Your task to perform on an android device: install app "Microsoft Excel" Image 0: 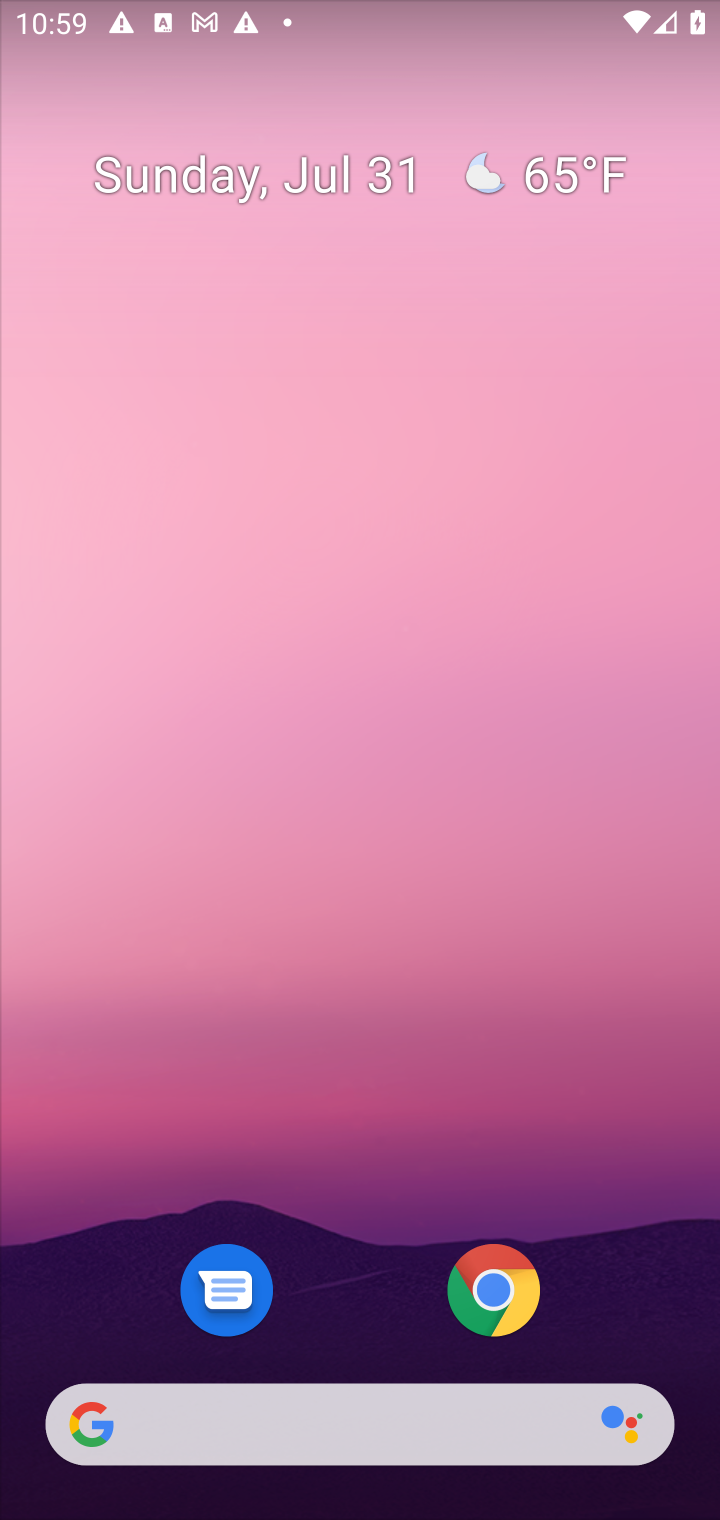
Step 0: press home button
Your task to perform on an android device: install app "Microsoft Excel" Image 1: 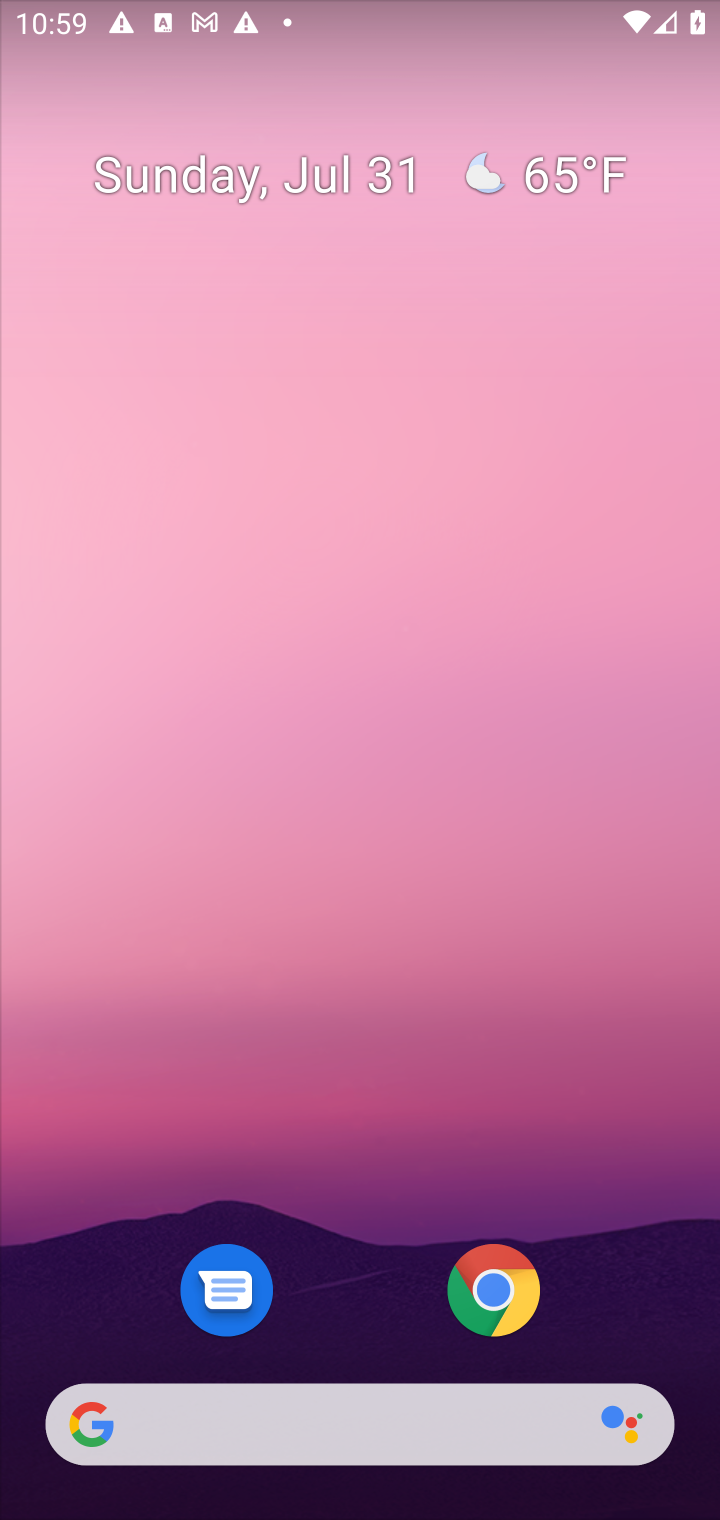
Step 1: drag from (602, 1227) to (562, 143)
Your task to perform on an android device: install app "Microsoft Excel" Image 2: 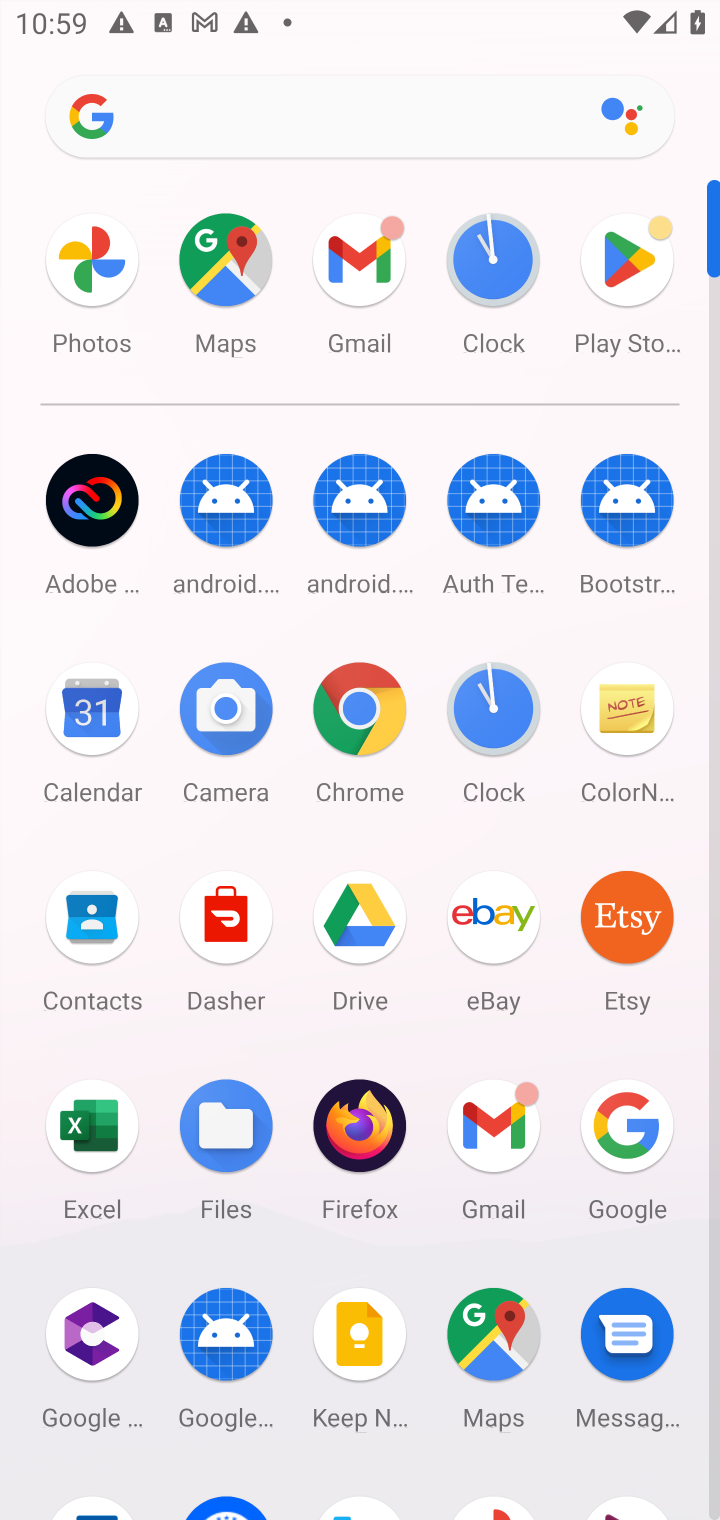
Step 2: click (627, 264)
Your task to perform on an android device: install app "Microsoft Excel" Image 3: 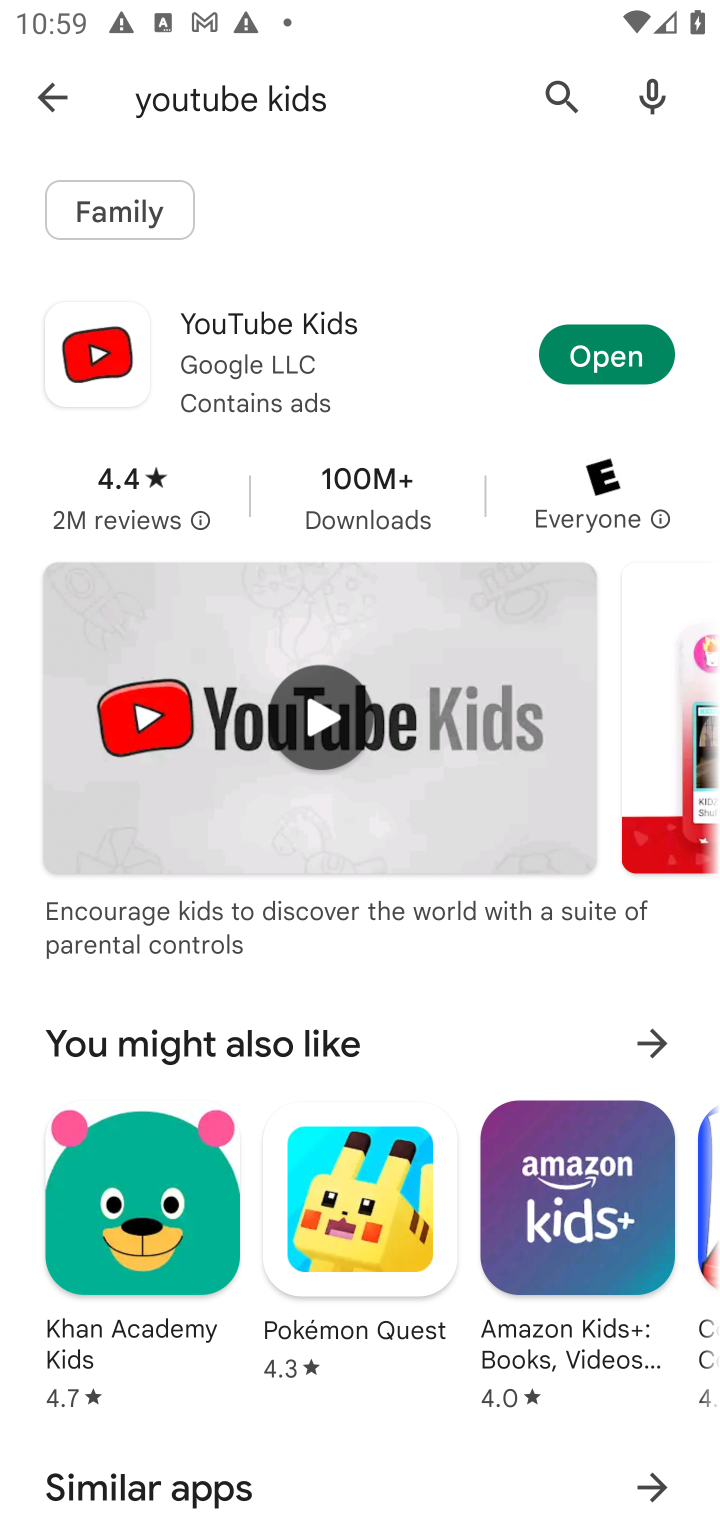
Step 3: click (569, 80)
Your task to perform on an android device: install app "Microsoft Excel" Image 4: 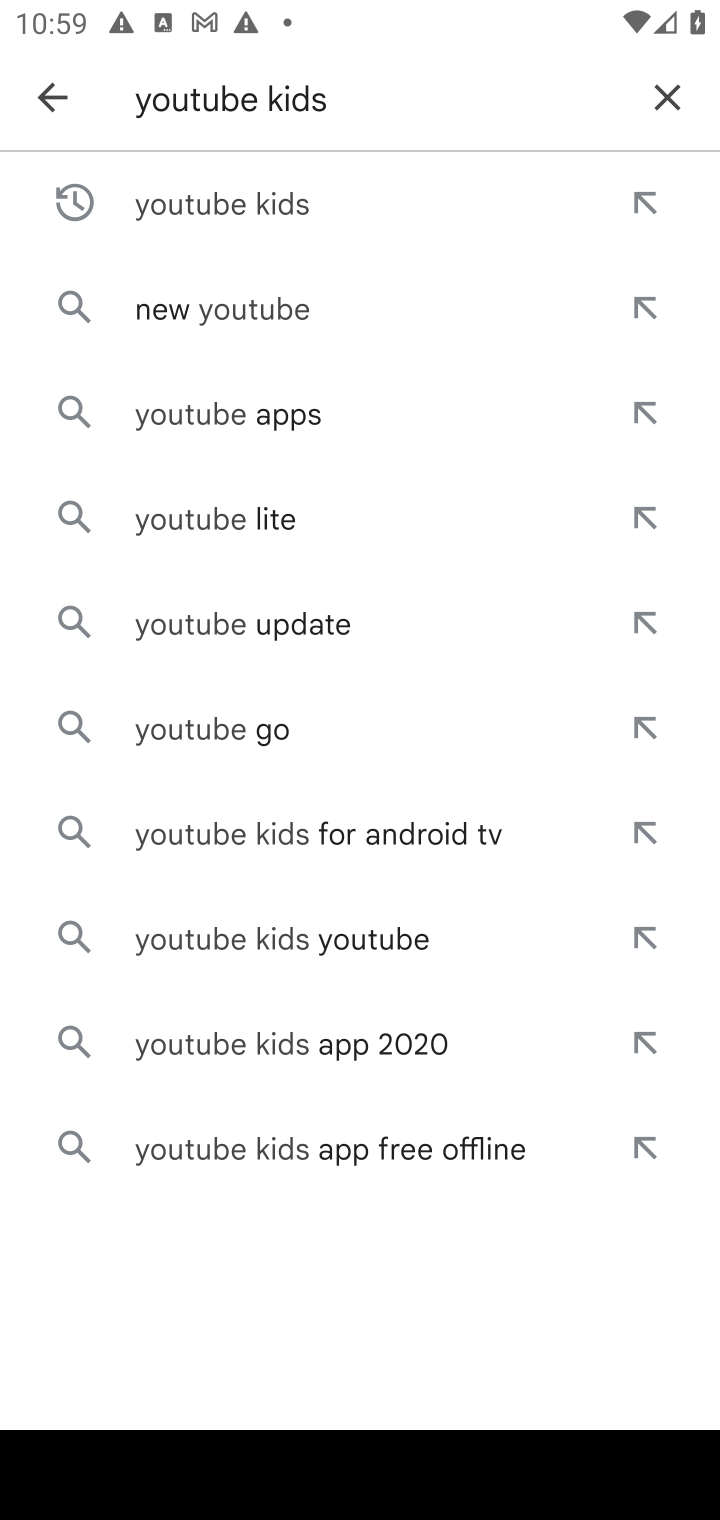
Step 4: click (667, 103)
Your task to perform on an android device: install app "Microsoft Excel" Image 5: 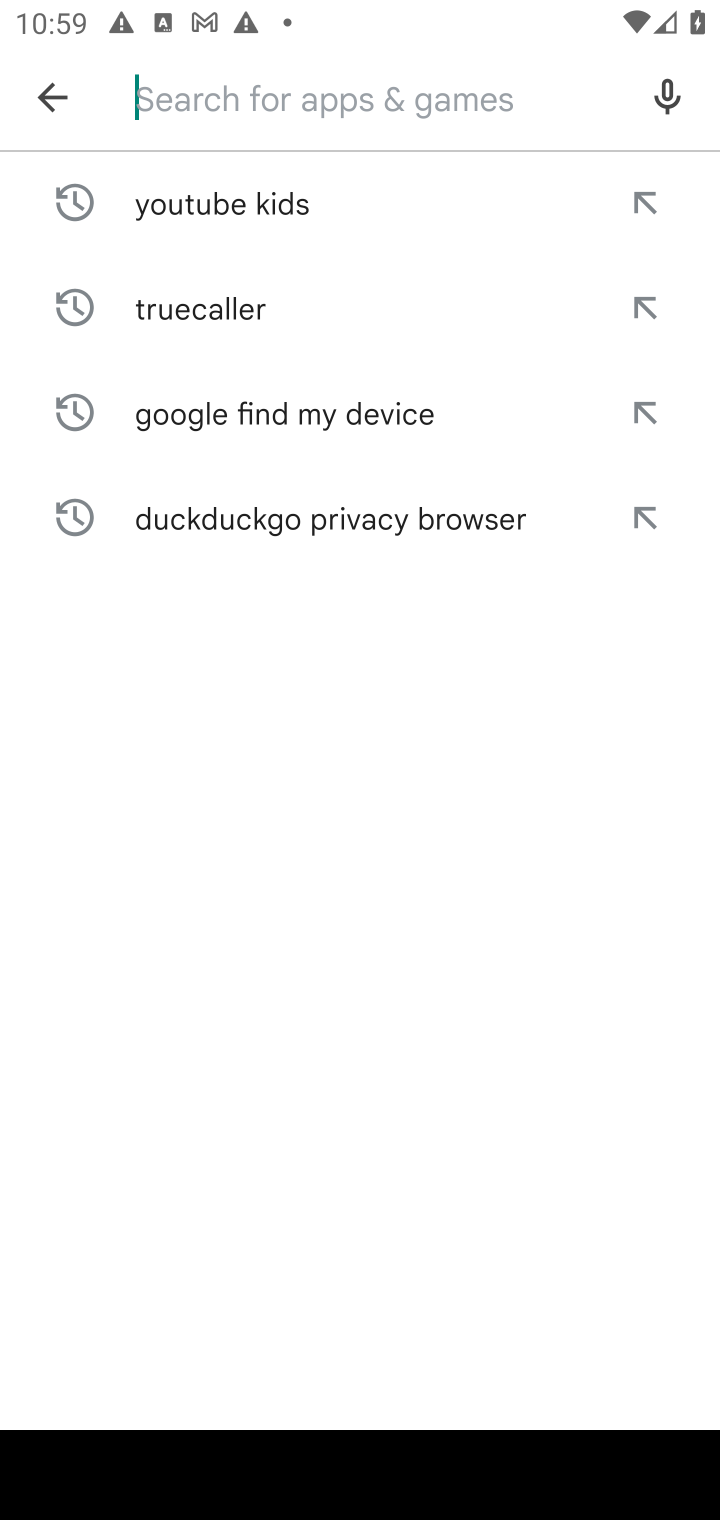
Step 5: type "microsoft excel"
Your task to perform on an android device: install app "Microsoft Excel" Image 6: 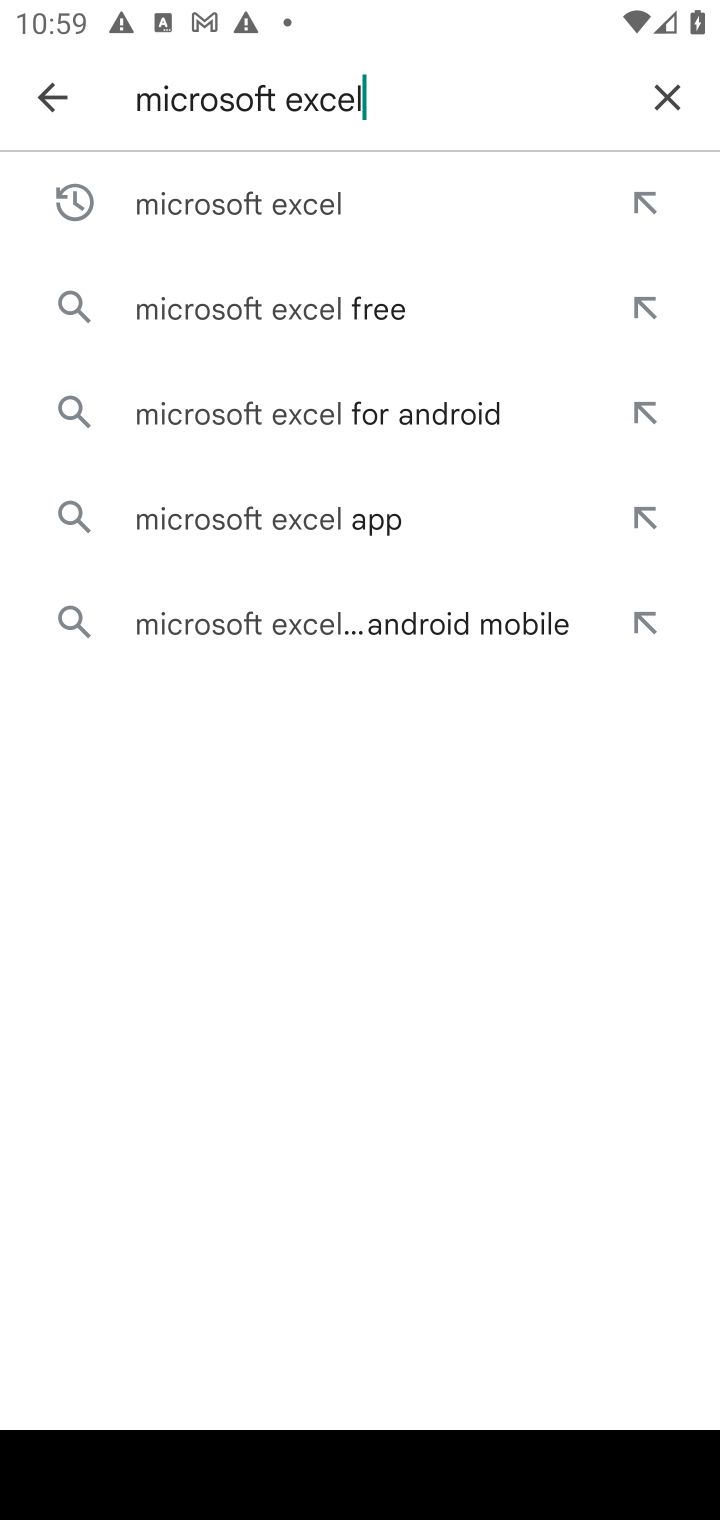
Step 6: click (435, 192)
Your task to perform on an android device: install app "Microsoft Excel" Image 7: 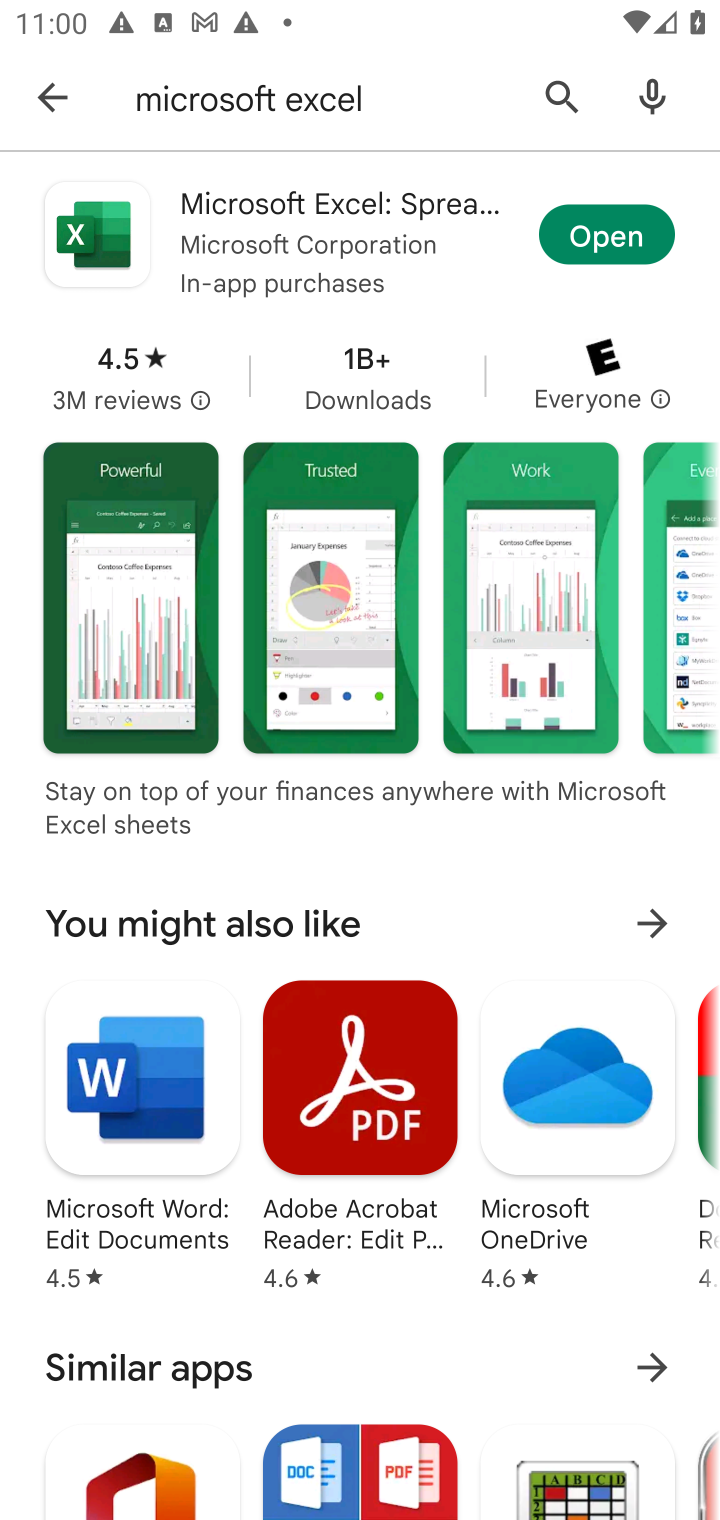
Step 7: task complete